Your task to perform on an android device: delete the emails in spam in the gmail app Image 0: 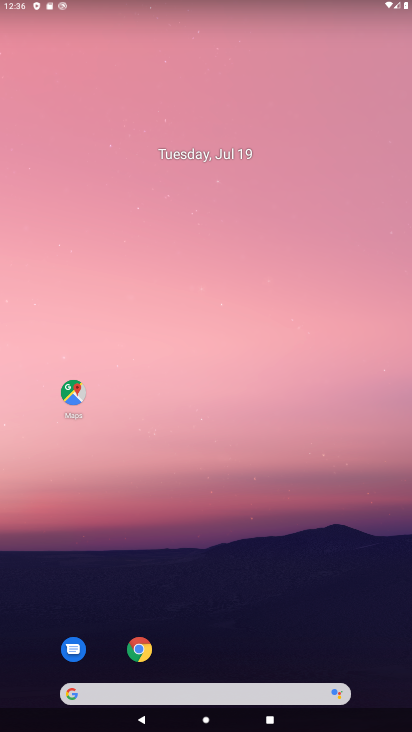
Step 0: drag from (242, 654) to (226, 219)
Your task to perform on an android device: delete the emails in spam in the gmail app Image 1: 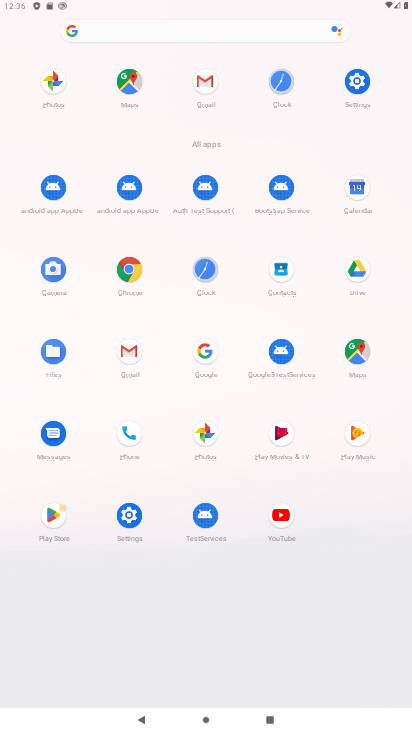
Step 1: click (130, 360)
Your task to perform on an android device: delete the emails in spam in the gmail app Image 2: 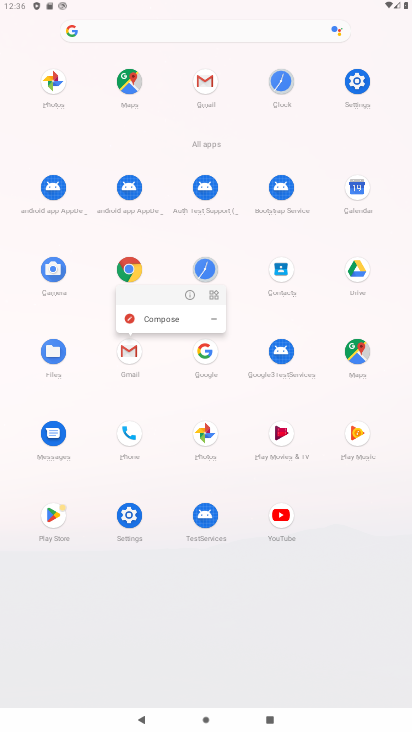
Step 2: click (127, 356)
Your task to perform on an android device: delete the emails in spam in the gmail app Image 3: 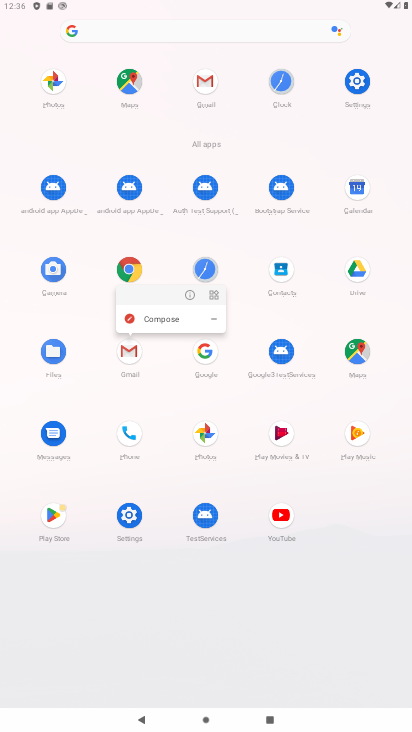
Step 3: click (127, 356)
Your task to perform on an android device: delete the emails in spam in the gmail app Image 4: 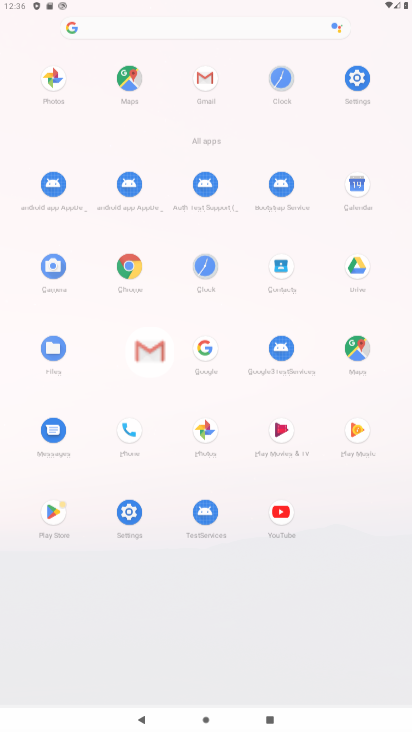
Step 4: click (127, 356)
Your task to perform on an android device: delete the emails in spam in the gmail app Image 5: 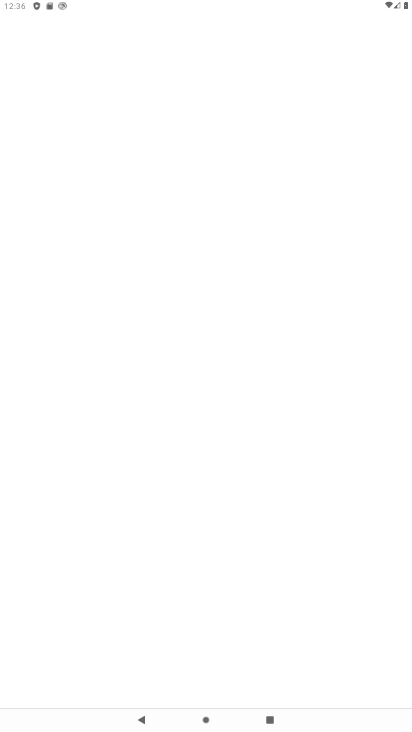
Step 5: click (129, 358)
Your task to perform on an android device: delete the emails in spam in the gmail app Image 6: 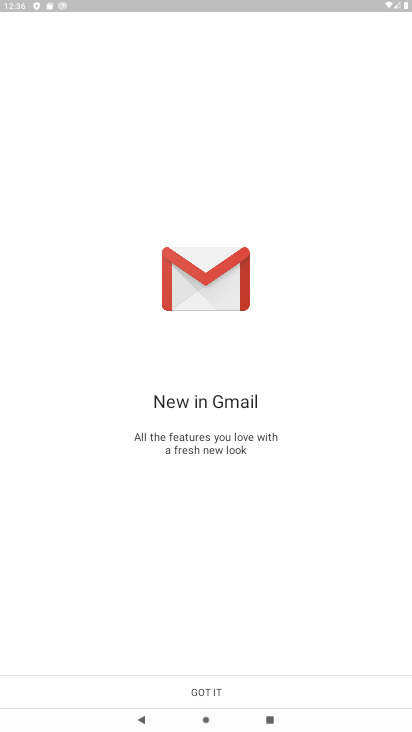
Step 6: click (207, 686)
Your task to perform on an android device: delete the emails in spam in the gmail app Image 7: 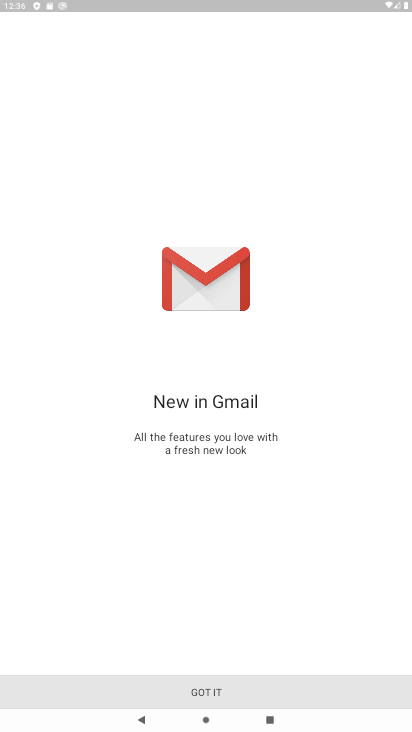
Step 7: click (207, 686)
Your task to perform on an android device: delete the emails in spam in the gmail app Image 8: 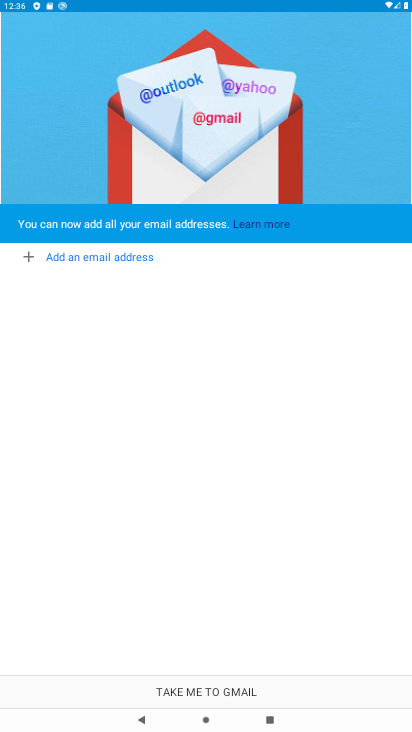
Step 8: click (208, 685)
Your task to perform on an android device: delete the emails in spam in the gmail app Image 9: 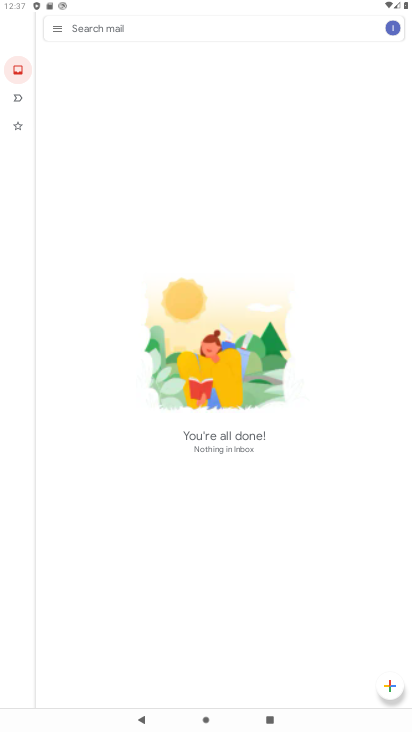
Step 9: click (59, 35)
Your task to perform on an android device: delete the emails in spam in the gmail app Image 10: 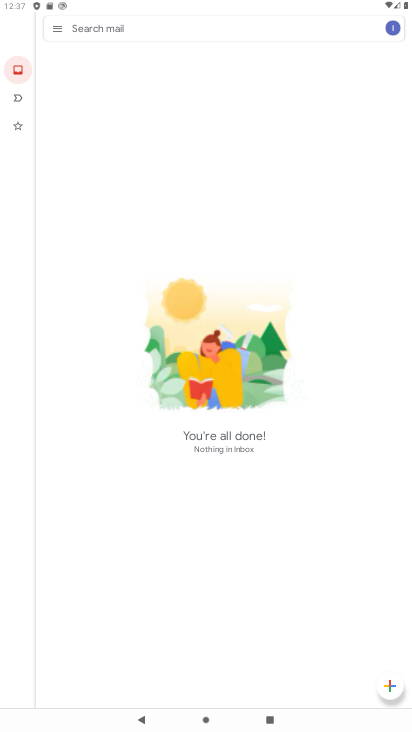
Step 10: click (59, 35)
Your task to perform on an android device: delete the emails in spam in the gmail app Image 11: 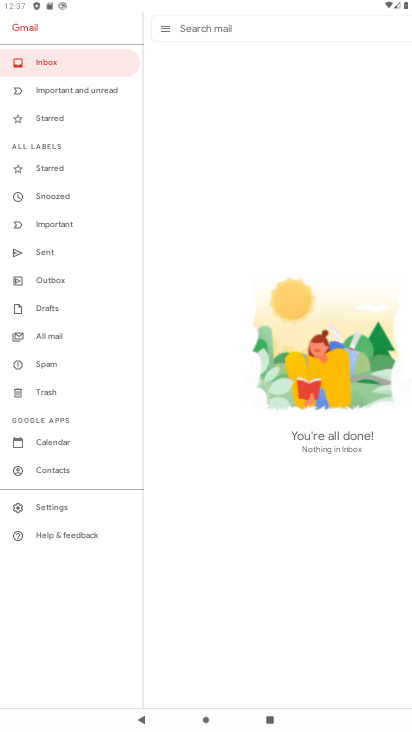
Step 11: click (59, 35)
Your task to perform on an android device: delete the emails in spam in the gmail app Image 12: 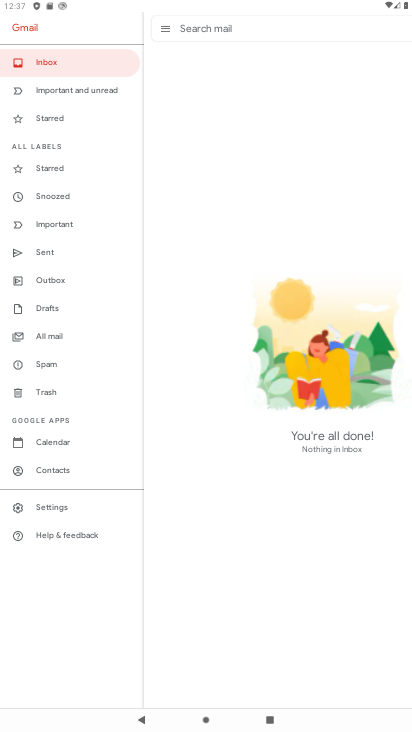
Step 12: click (46, 366)
Your task to perform on an android device: delete the emails in spam in the gmail app Image 13: 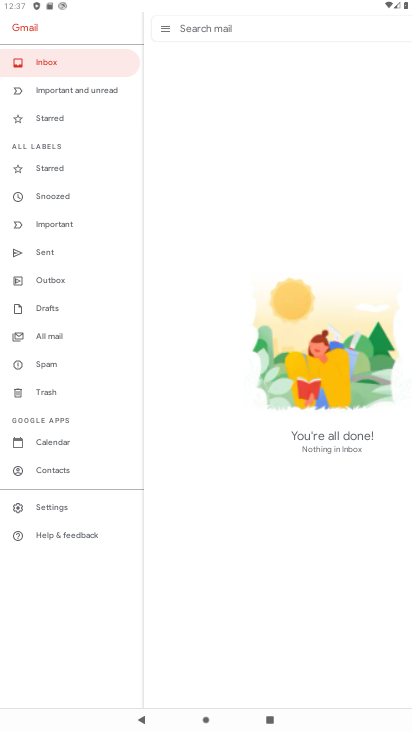
Step 13: click (46, 366)
Your task to perform on an android device: delete the emails in spam in the gmail app Image 14: 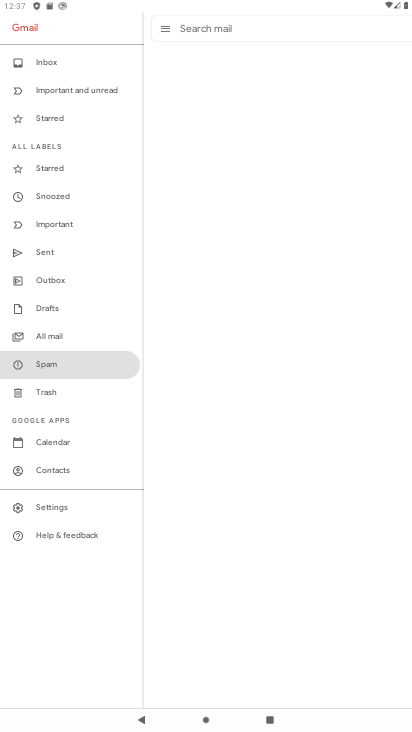
Step 14: click (46, 366)
Your task to perform on an android device: delete the emails in spam in the gmail app Image 15: 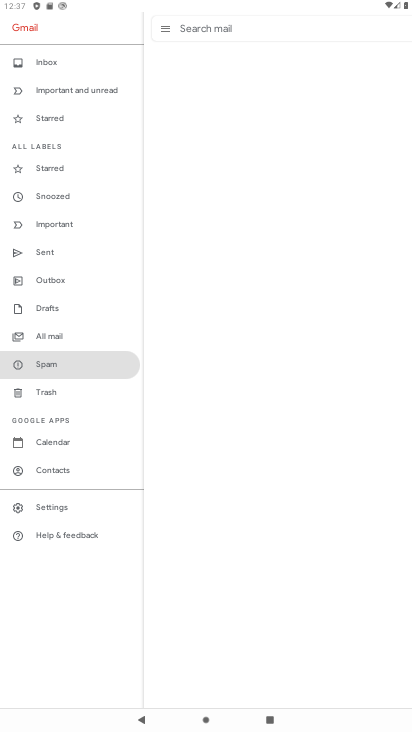
Step 15: click (46, 366)
Your task to perform on an android device: delete the emails in spam in the gmail app Image 16: 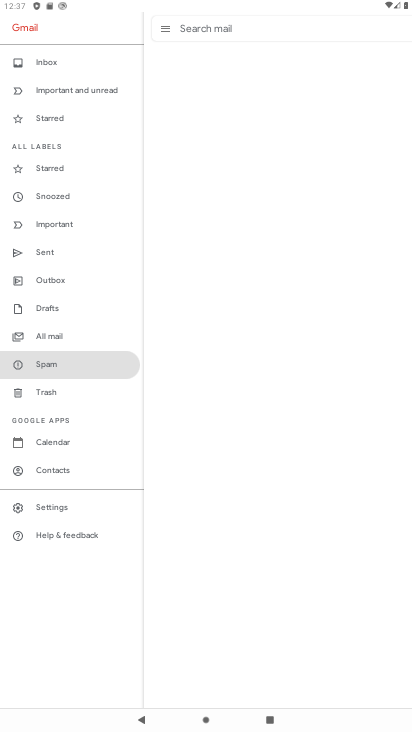
Step 16: click (46, 366)
Your task to perform on an android device: delete the emails in spam in the gmail app Image 17: 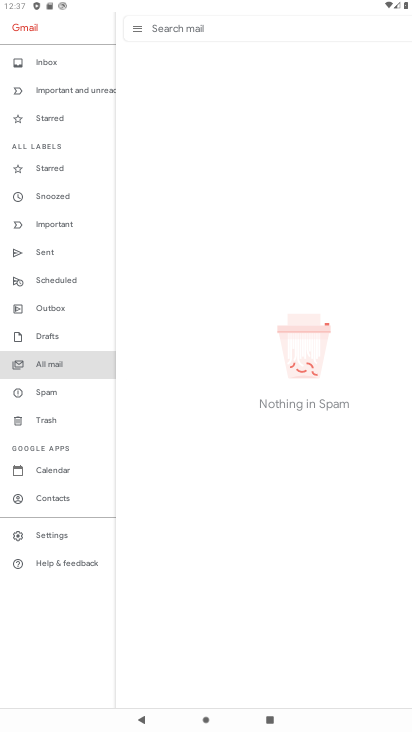
Step 17: click (46, 366)
Your task to perform on an android device: delete the emails in spam in the gmail app Image 18: 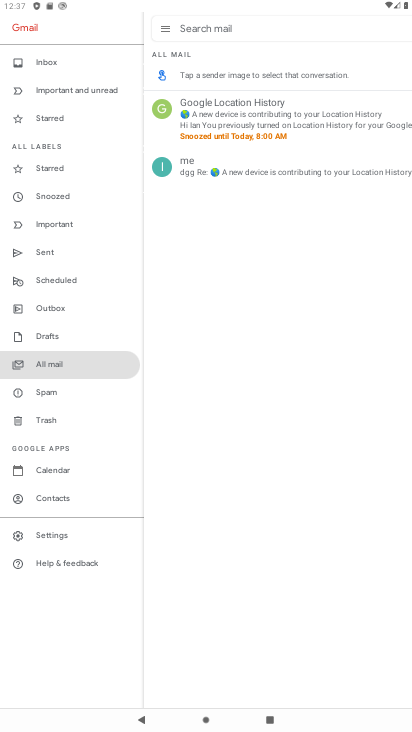
Step 18: click (43, 393)
Your task to perform on an android device: delete the emails in spam in the gmail app Image 19: 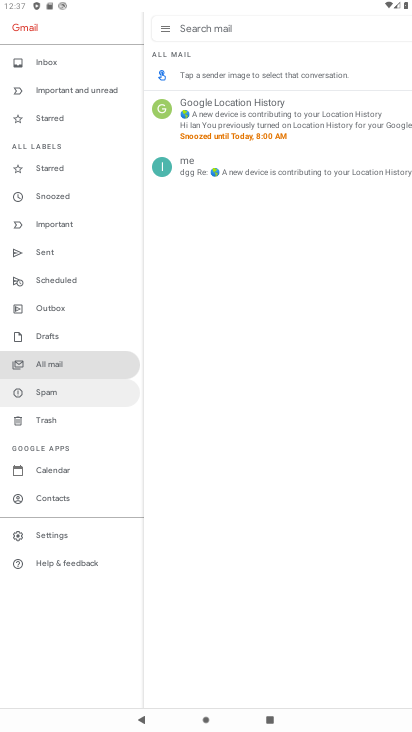
Step 19: click (42, 393)
Your task to perform on an android device: delete the emails in spam in the gmail app Image 20: 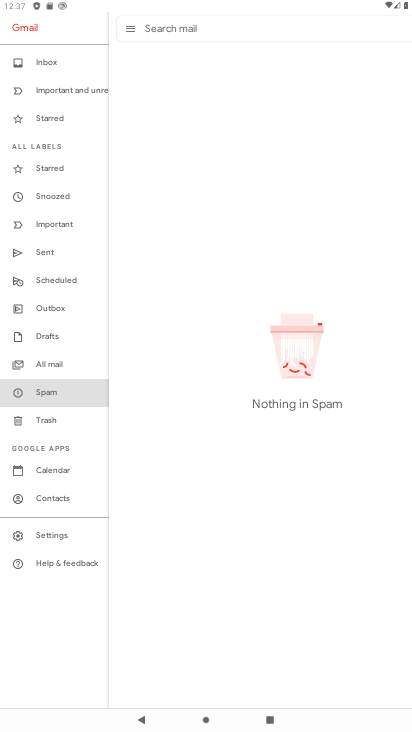
Step 20: click (50, 386)
Your task to perform on an android device: delete the emails in spam in the gmail app Image 21: 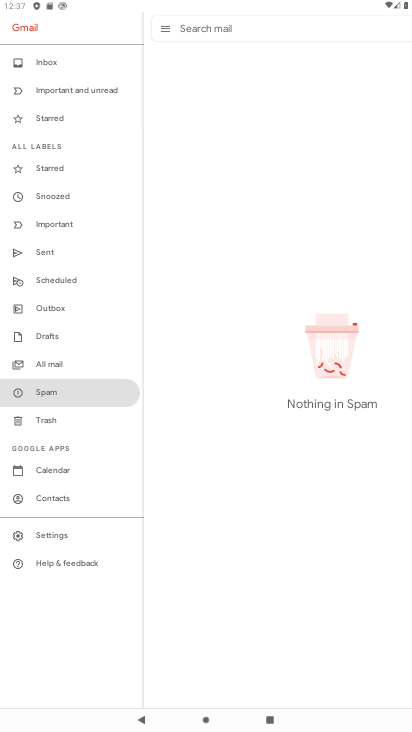
Step 21: task complete